Your task to perform on an android device: Turn on the flashlight Image 0: 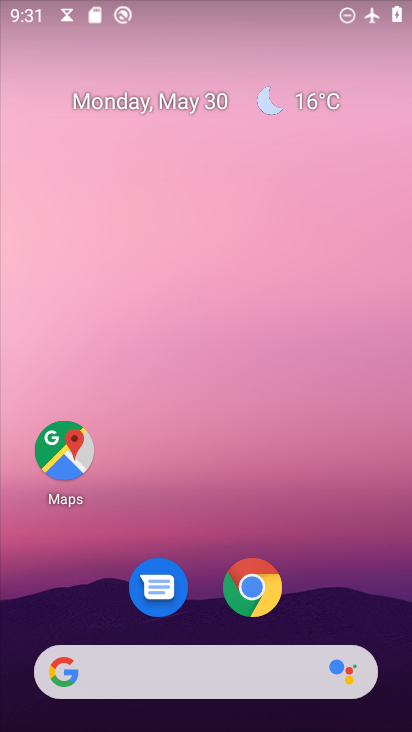
Step 0: drag from (240, 0) to (270, 451)
Your task to perform on an android device: Turn on the flashlight Image 1: 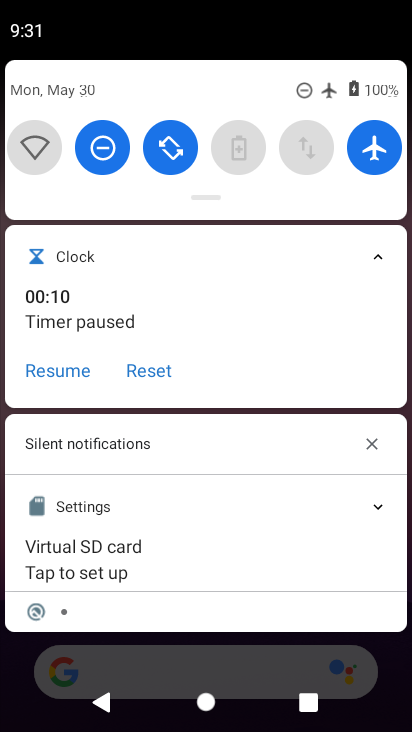
Step 1: task complete